Your task to perform on an android device: toggle sleep mode Image 0: 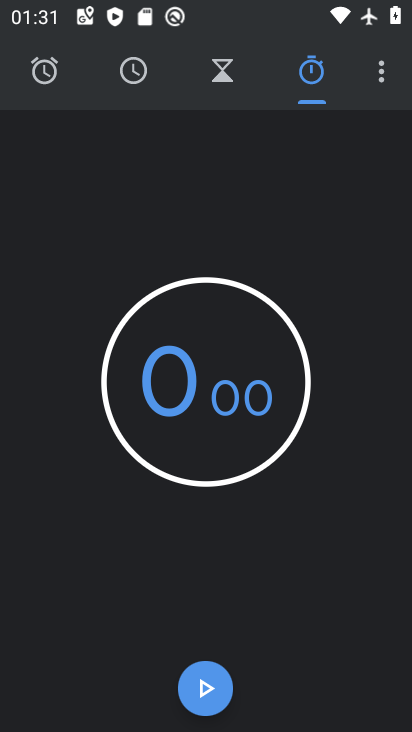
Step 0: press home button
Your task to perform on an android device: toggle sleep mode Image 1: 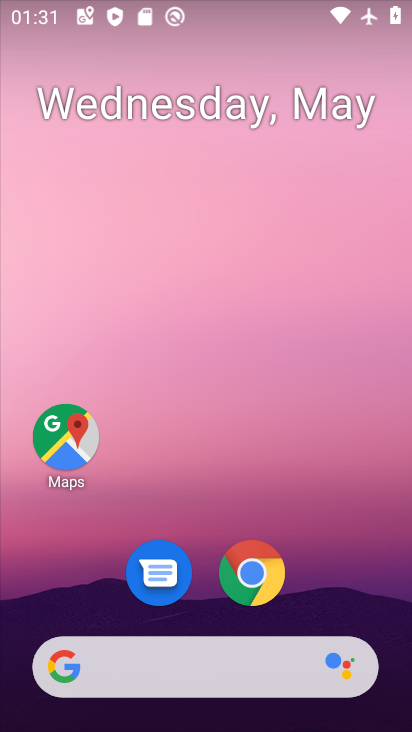
Step 1: drag from (314, 570) to (320, 275)
Your task to perform on an android device: toggle sleep mode Image 2: 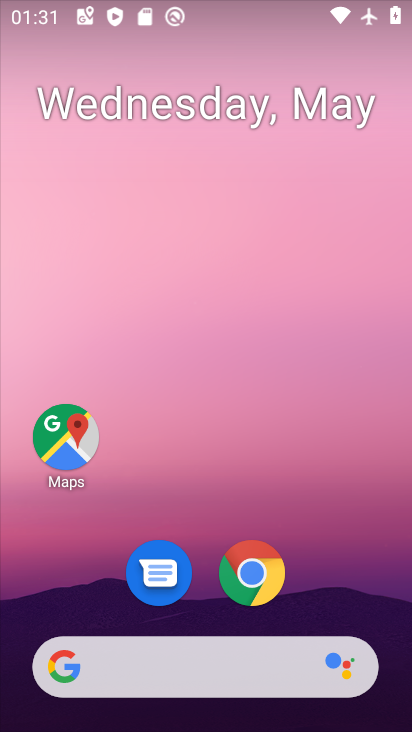
Step 2: drag from (310, 571) to (286, 48)
Your task to perform on an android device: toggle sleep mode Image 3: 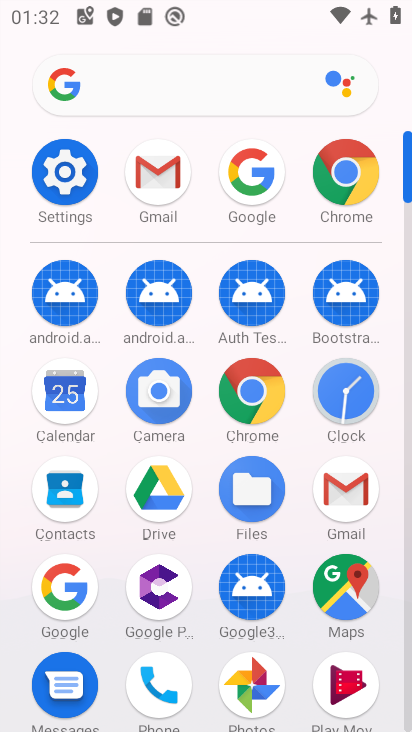
Step 3: click (68, 180)
Your task to perform on an android device: toggle sleep mode Image 4: 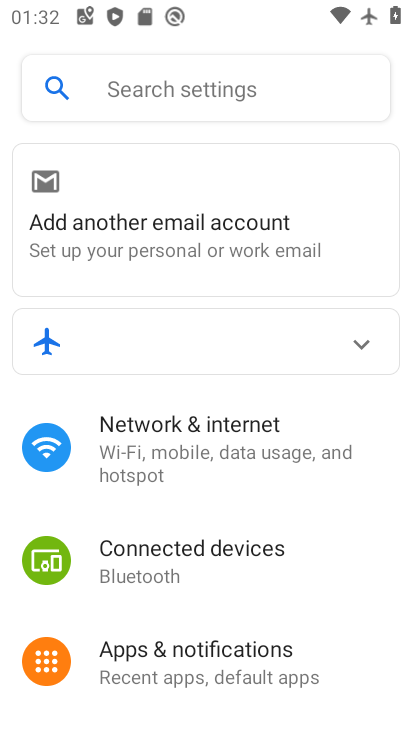
Step 4: task complete